Your task to perform on an android device: Open calendar and show me the first week of next month Image 0: 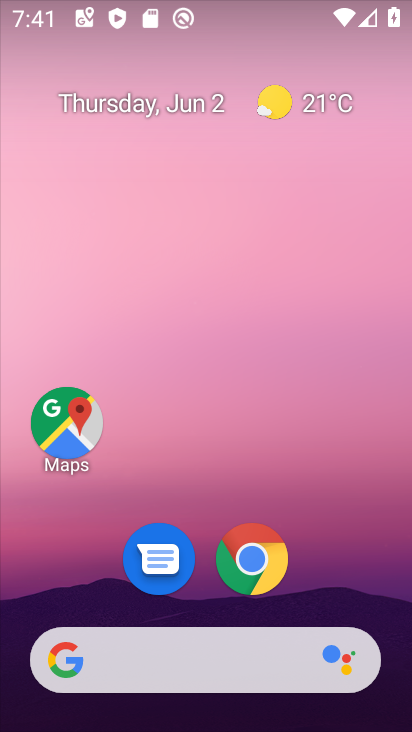
Step 0: drag from (316, 522) to (333, 5)
Your task to perform on an android device: Open calendar and show me the first week of next month Image 1: 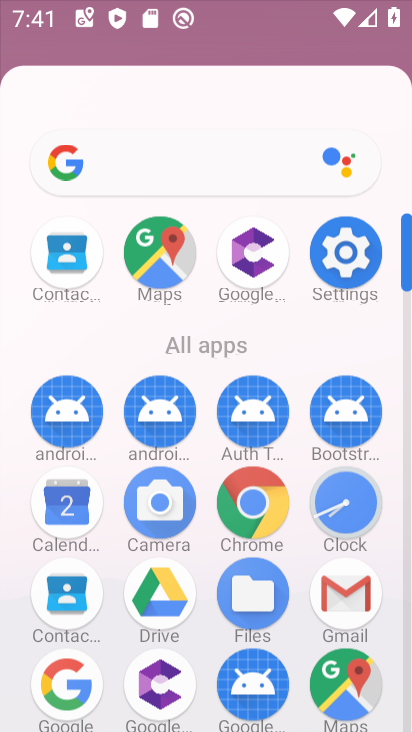
Step 1: click (62, 516)
Your task to perform on an android device: Open calendar and show me the first week of next month Image 2: 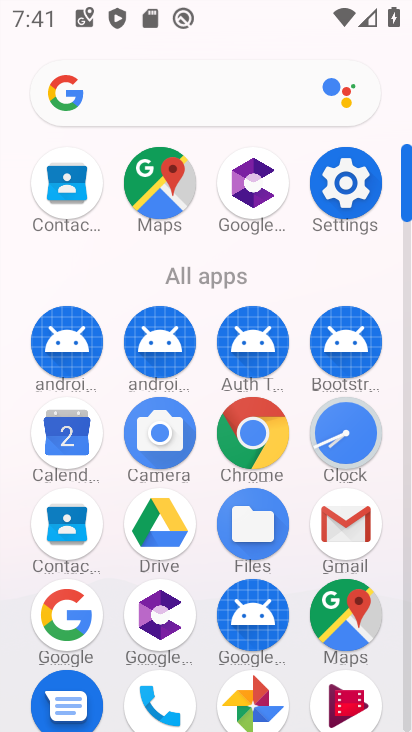
Step 2: click (68, 444)
Your task to perform on an android device: Open calendar and show me the first week of next month Image 3: 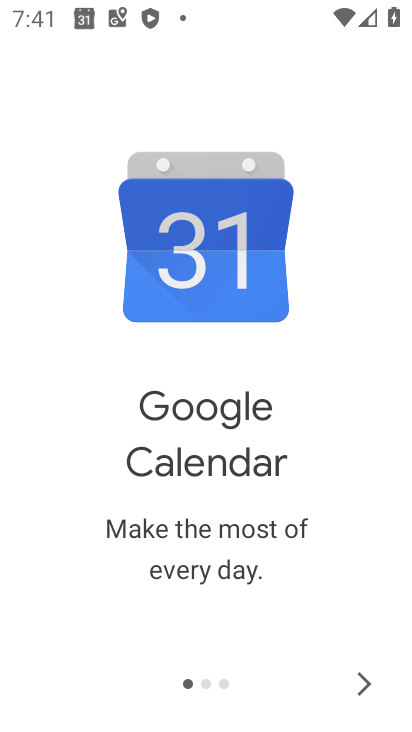
Step 3: click (356, 684)
Your task to perform on an android device: Open calendar and show me the first week of next month Image 4: 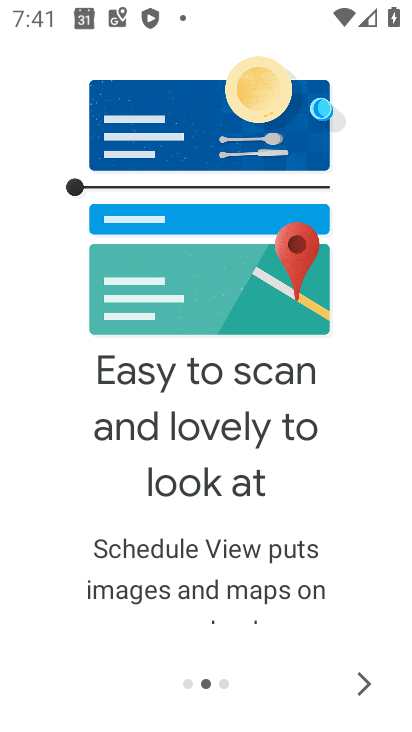
Step 4: click (356, 684)
Your task to perform on an android device: Open calendar and show me the first week of next month Image 5: 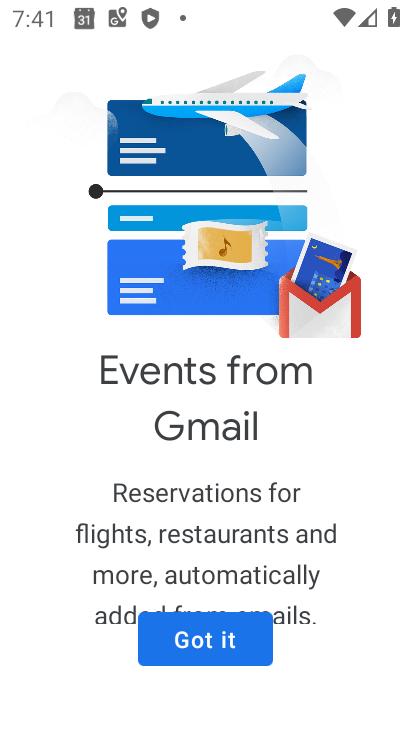
Step 5: click (224, 648)
Your task to perform on an android device: Open calendar and show me the first week of next month Image 6: 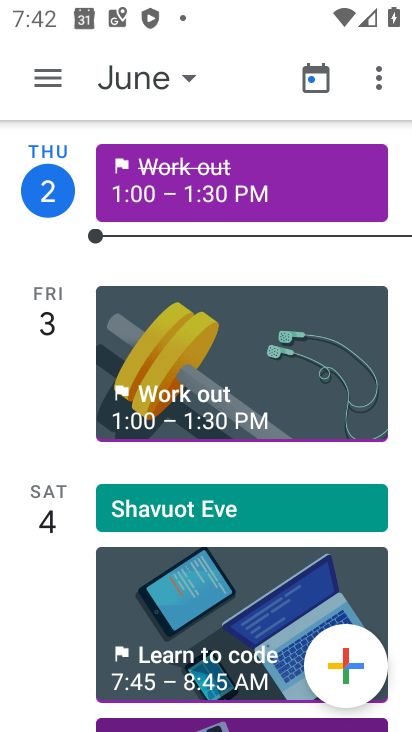
Step 6: click (185, 82)
Your task to perform on an android device: Open calendar and show me the first week of next month Image 7: 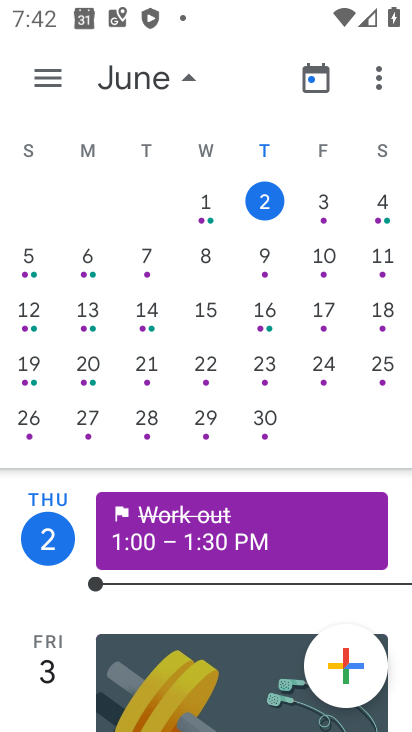
Step 7: drag from (353, 287) to (16, 284)
Your task to perform on an android device: Open calendar and show me the first week of next month Image 8: 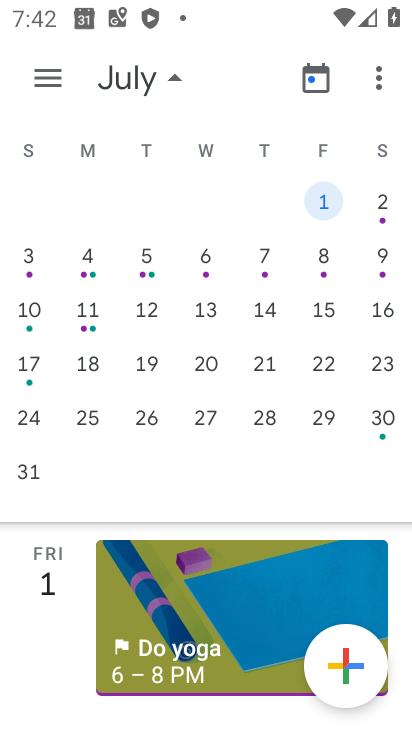
Step 8: click (335, 205)
Your task to perform on an android device: Open calendar and show me the first week of next month Image 9: 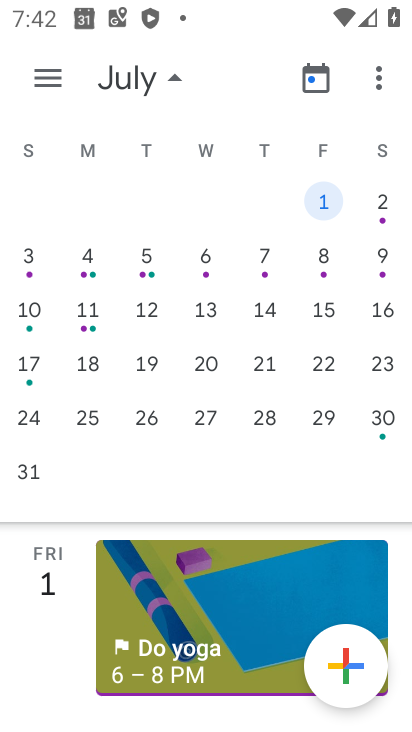
Step 9: click (316, 201)
Your task to perform on an android device: Open calendar and show me the first week of next month Image 10: 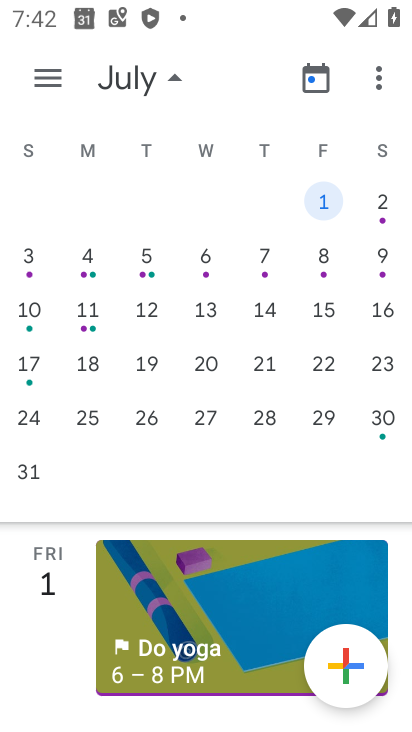
Step 10: click (316, 201)
Your task to perform on an android device: Open calendar and show me the first week of next month Image 11: 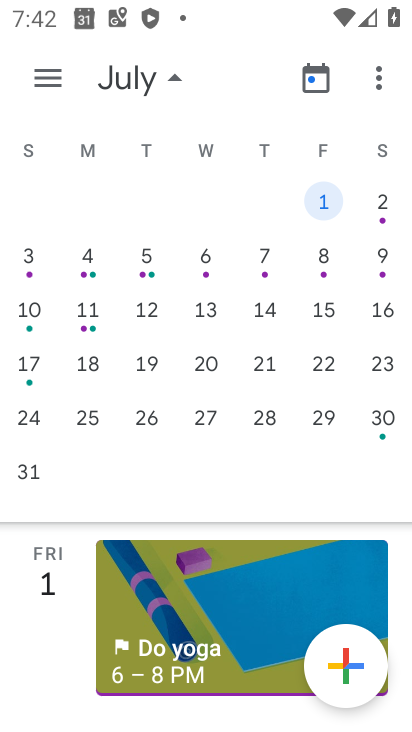
Step 11: click (316, 201)
Your task to perform on an android device: Open calendar and show me the first week of next month Image 12: 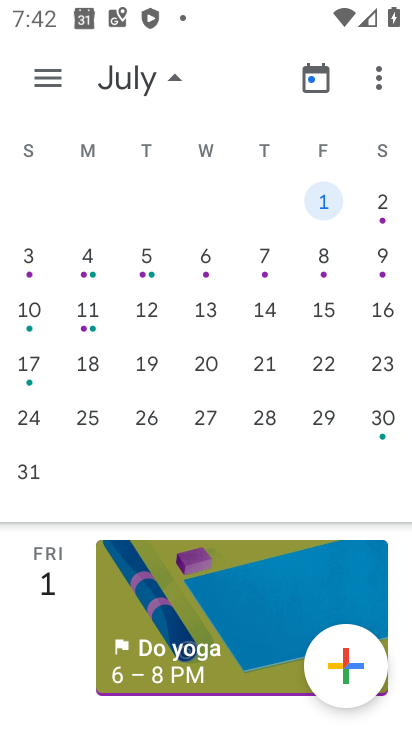
Step 12: click (44, 72)
Your task to perform on an android device: Open calendar and show me the first week of next month Image 13: 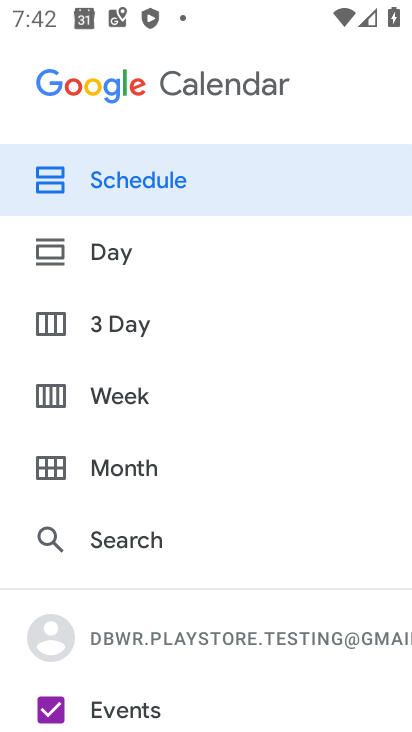
Step 13: click (105, 392)
Your task to perform on an android device: Open calendar and show me the first week of next month Image 14: 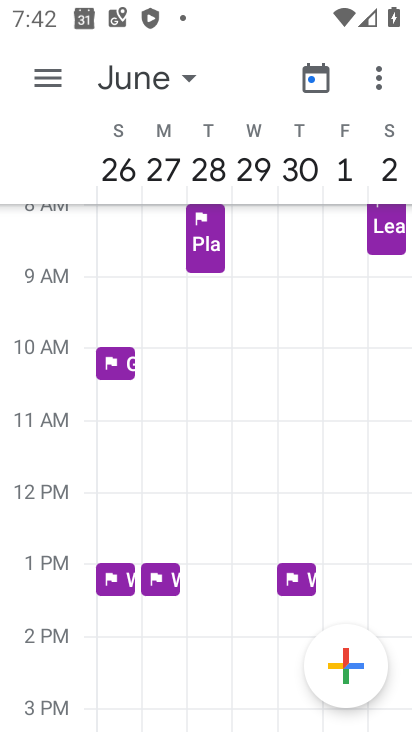
Step 14: task complete